Your task to perform on an android device: What's on my calendar tomorrow? Image 0: 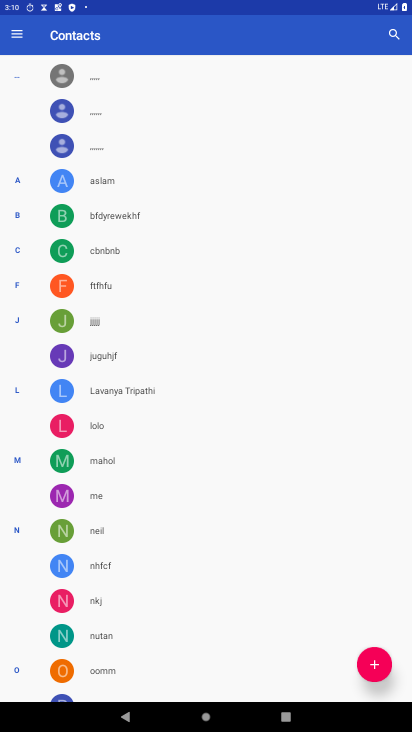
Step 0: press home button
Your task to perform on an android device: What's on my calendar tomorrow? Image 1: 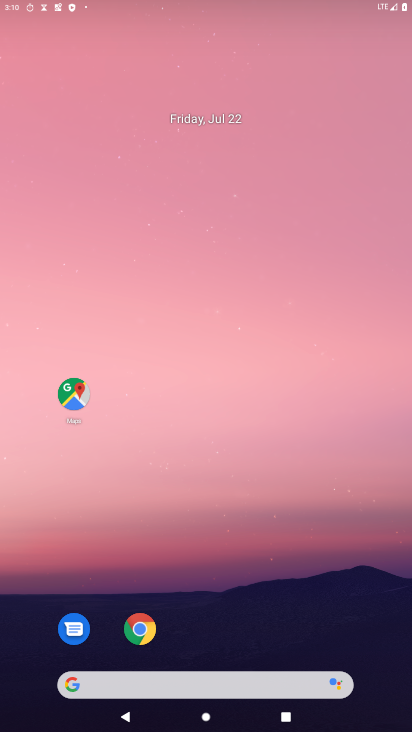
Step 1: drag from (215, 694) to (312, 4)
Your task to perform on an android device: What's on my calendar tomorrow? Image 2: 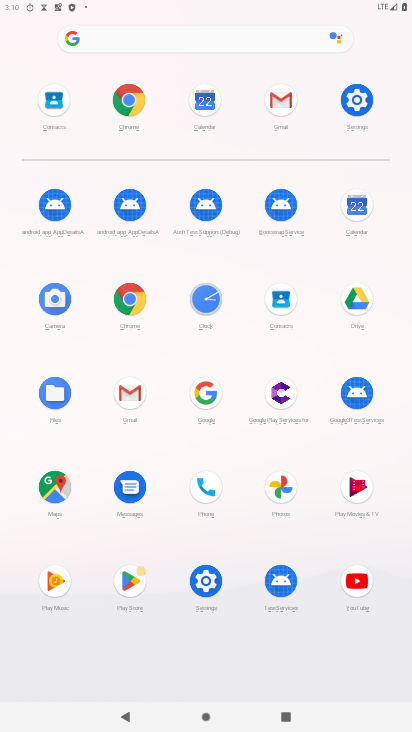
Step 2: click (362, 210)
Your task to perform on an android device: What's on my calendar tomorrow? Image 3: 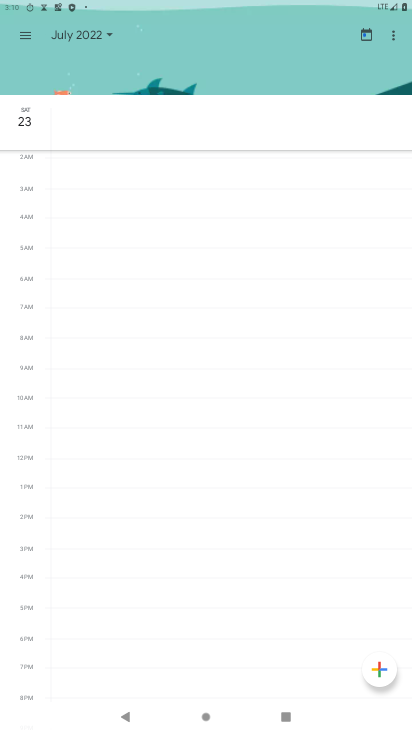
Step 3: click (80, 28)
Your task to perform on an android device: What's on my calendar tomorrow? Image 4: 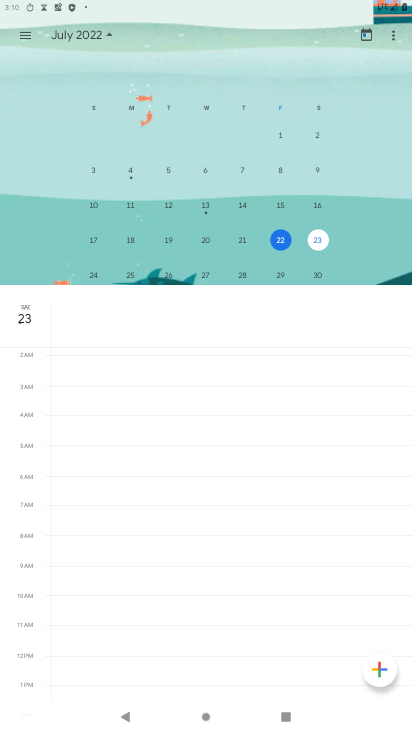
Step 4: click (316, 238)
Your task to perform on an android device: What's on my calendar tomorrow? Image 5: 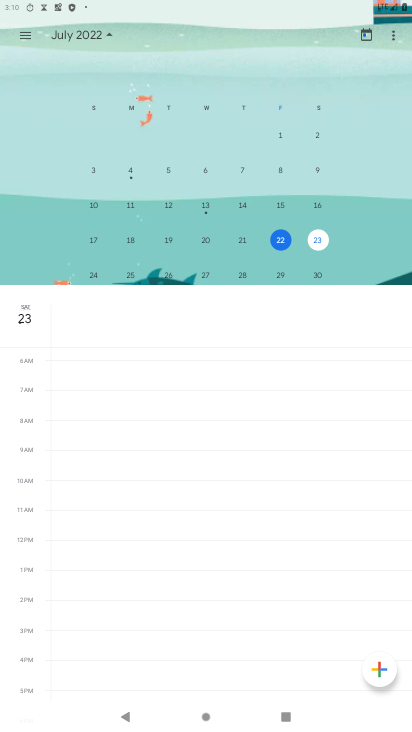
Step 5: task complete